Your task to perform on an android device: find which apps use the phone's location Image 0: 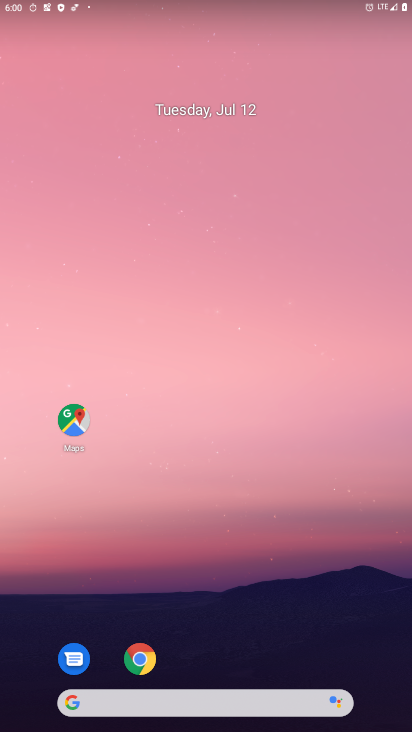
Step 0: drag from (202, 479) to (195, 125)
Your task to perform on an android device: find which apps use the phone's location Image 1: 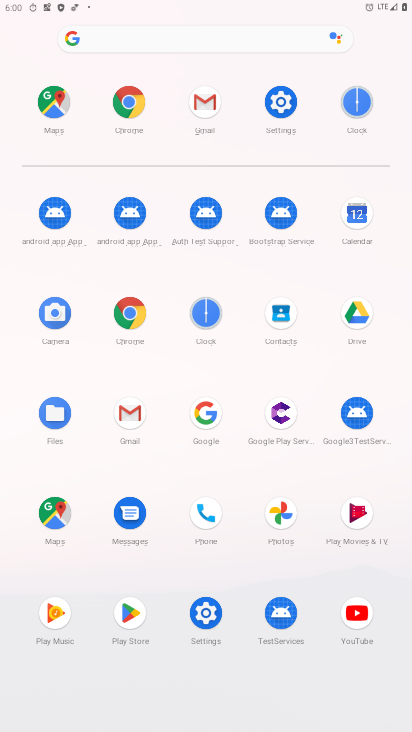
Step 1: click (279, 106)
Your task to perform on an android device: find which apps use the phone's location Image 2: 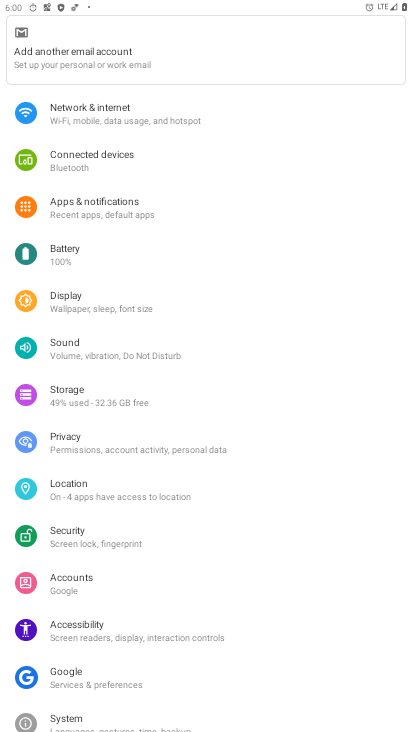
Step 2: click (94, 486)
Your task to perform on an android device: find which apps use the phone's location Image 3: 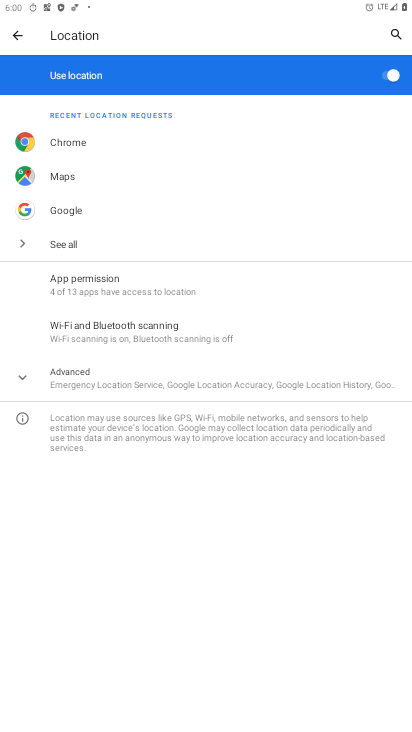
Step 3: click (92, 282)
Your task to perform on an android device: find which apps use the phone's location Image 4: 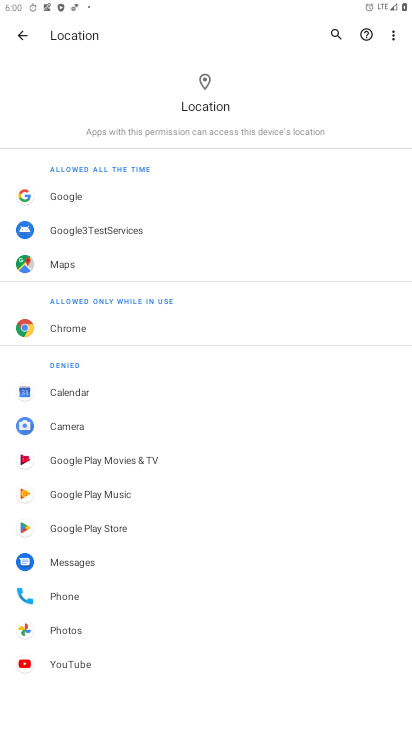
Step 4: task complete